Your task to perform on an android device: Open internet settings Image 0: 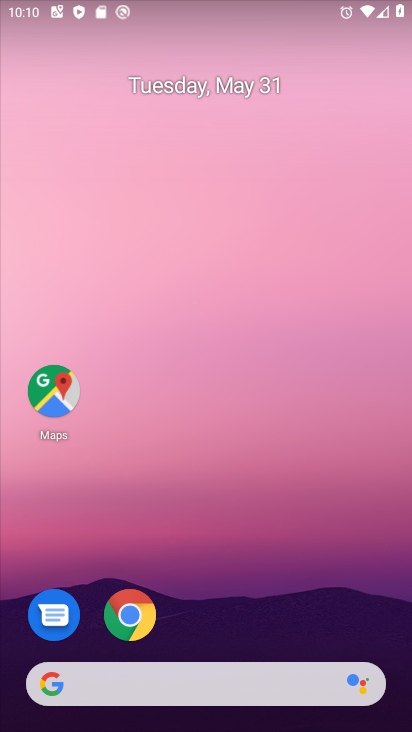
Step 0: drag from (276, 602) to (359, 42)
Your task to perform on an android device: Open internet settings Image 1: 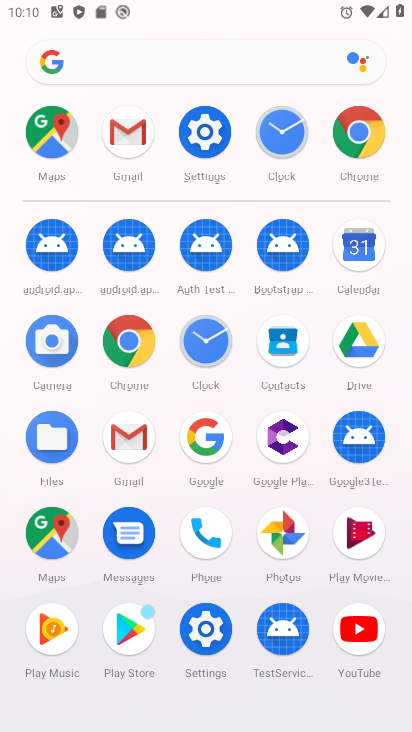
Step 1: click (196, 133)
Your task to perform on an android device: Open internet settings Image 2: 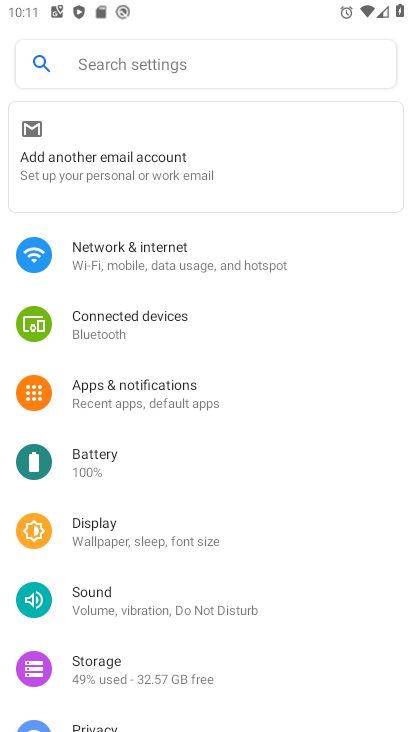
Step 2: click (135, 259)
Your task to perform on an android device: Open internet settings Image 3: 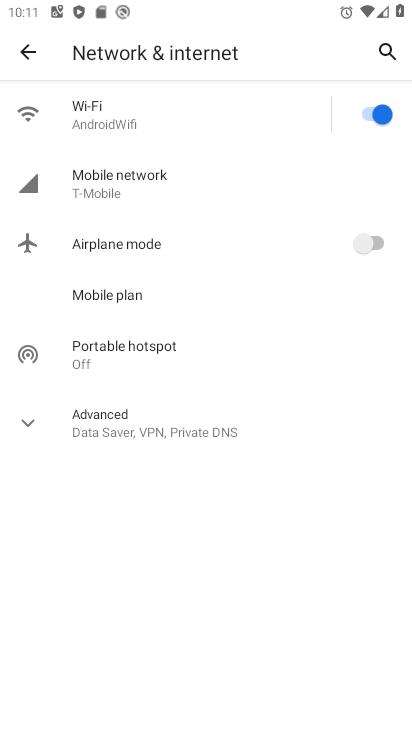
Step 3: task complete